Your task to perform on an android device: Go to Google maps Image 0: 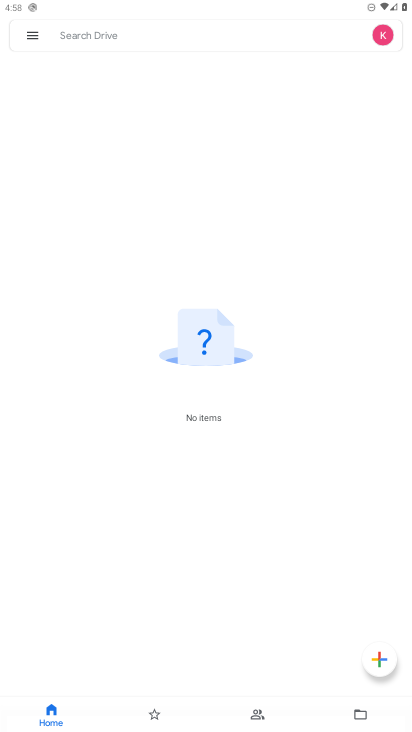
Step 0: press home button
Your task to perform on an android device: Go to Google maps Image 1: 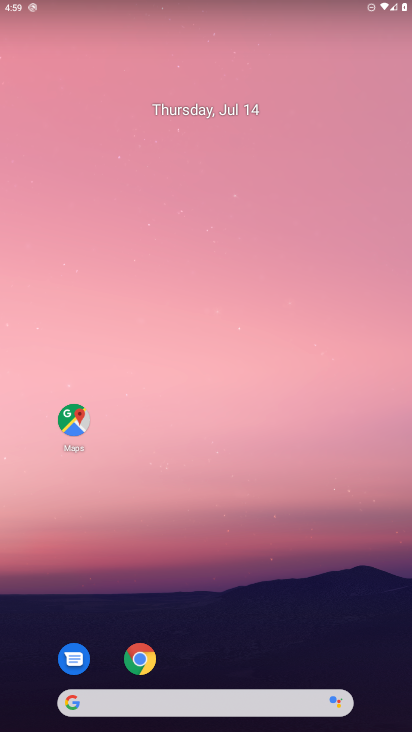
Step 1: click (72, 408)
Your task to perform on an android device: Go to Google maps Image 2: 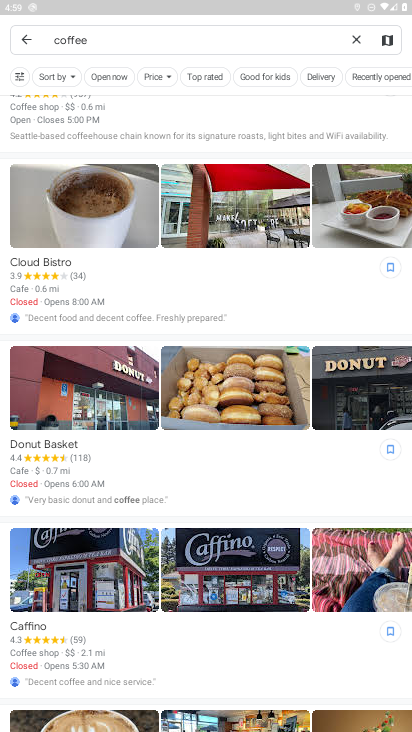
Step 2: click (24, 37)
Your task to perform on an android device: Go to Google maps Image 3: 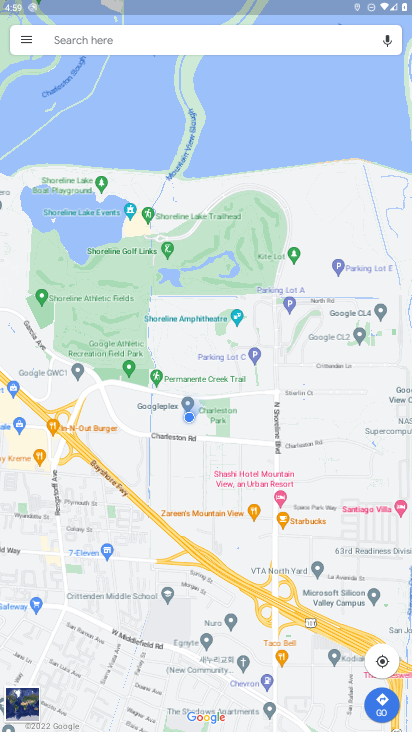
Step 3: click (24, 33)
Your task to perform on an android device: Go to Google maps Image 4: 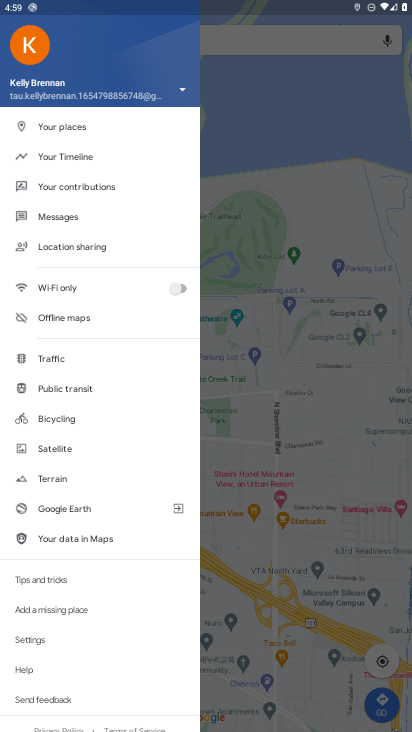
Step 4: task complete